Your task to perform on an android device: Open Amazon Image 0: 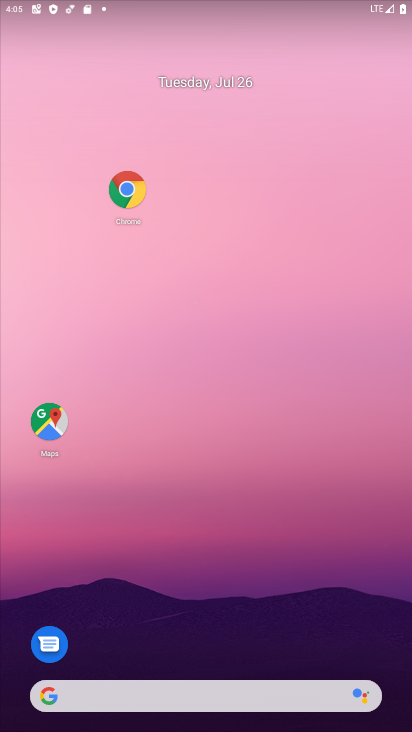
Step 0: drag from (166, 613) to (166, 243)
Your task to perform on an android device: Open Amazon Image 1: 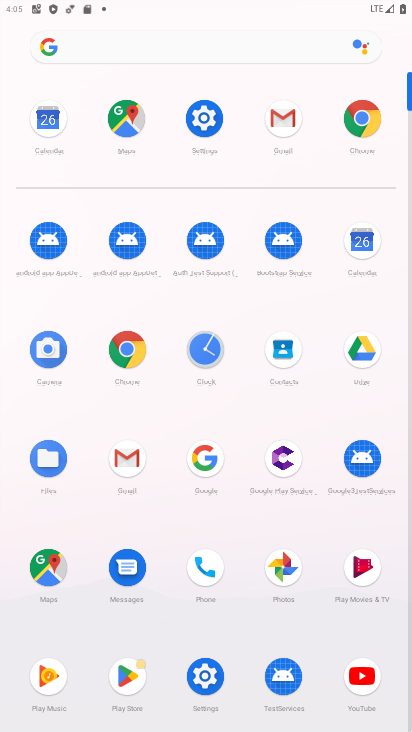
Step 1: click (197, 455)
Your task to perform on an android device: Open Amazon Image 2: 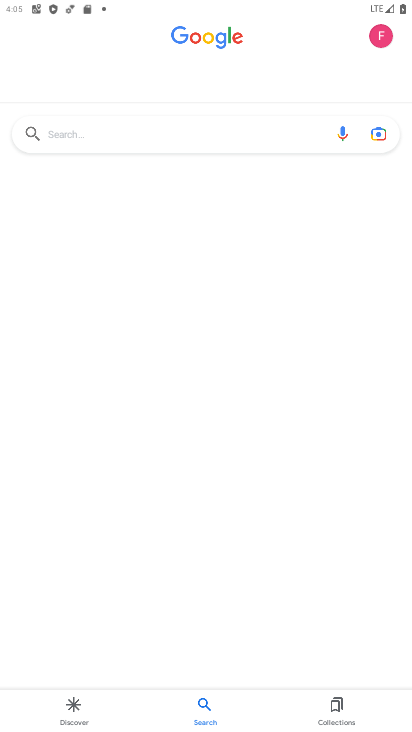
Step 2: click (105, 121)
Your task to perform on an android device: Open Amazon Image 3: 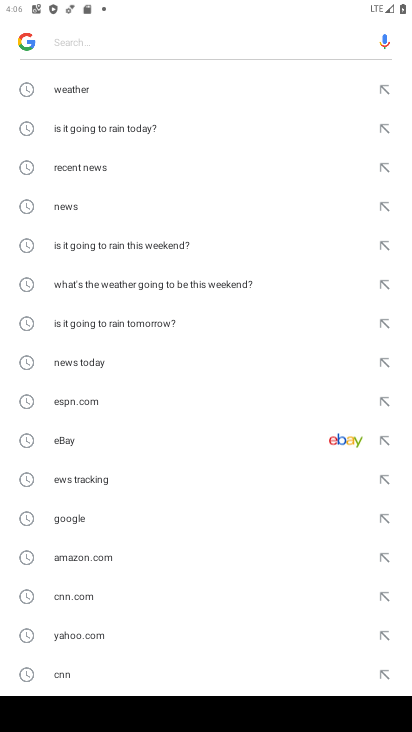
Step 3: click (89, 562)
Your task to perform on an android device: Open Amazon Image 4: 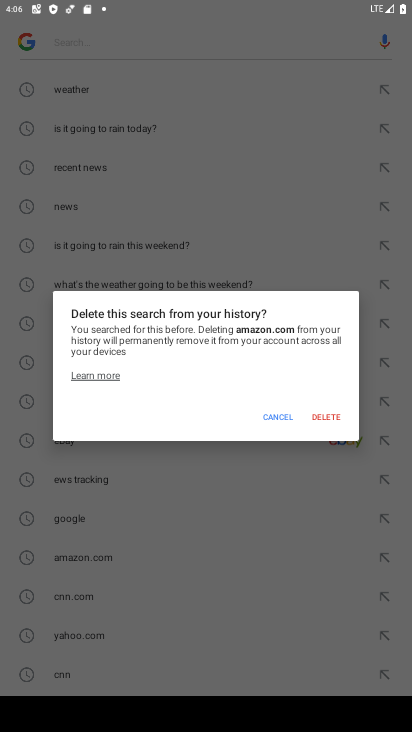
Step 4: click (279, 417)
Your task to perform on an android device: Open Amazon Image 5: 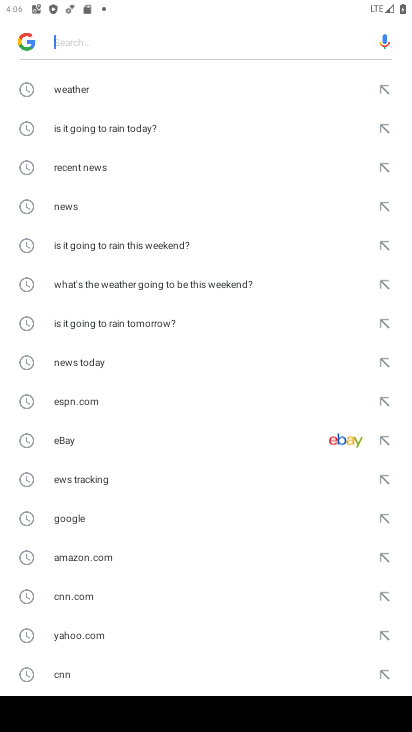
Step 5: click (79, 553)
Your task to perform on an android device: Open Amazon Image 6: 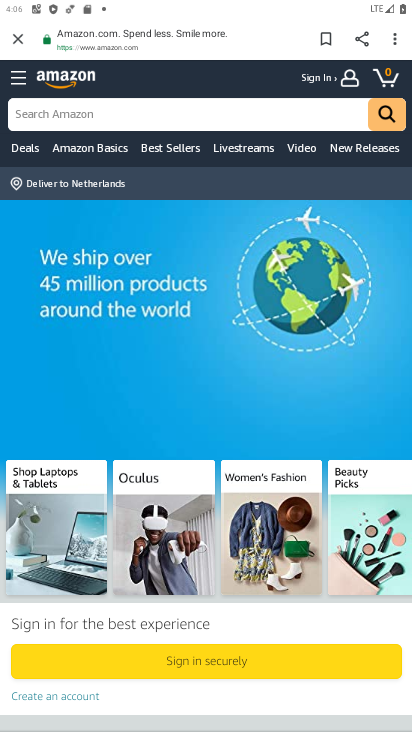
Step 6: task complete